Your task to perform on an android device: Open Google Chrome Image 0: 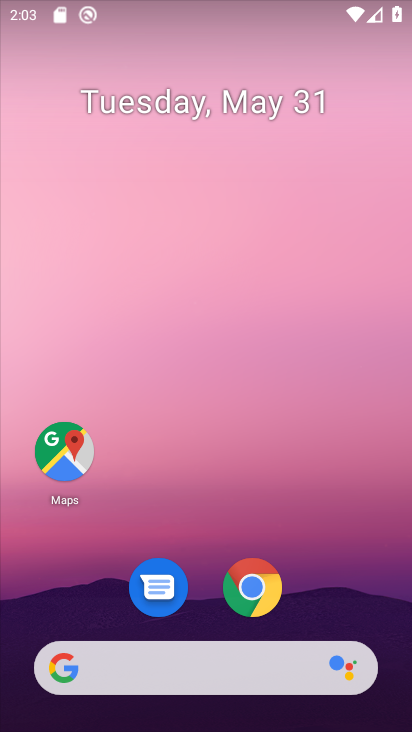
Step 0: click (239, 576)
Your task to perform on an android device: Open Google Chrome Image 1: 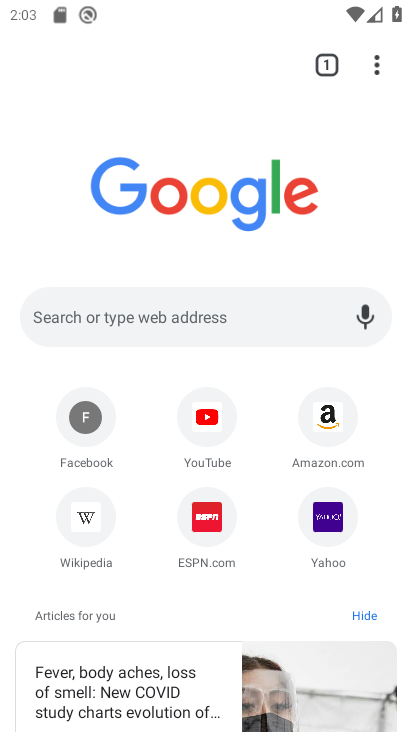
Step 1: task complete